Your task to perform on an android device: turn off smart reply in the gmail app Image 0: 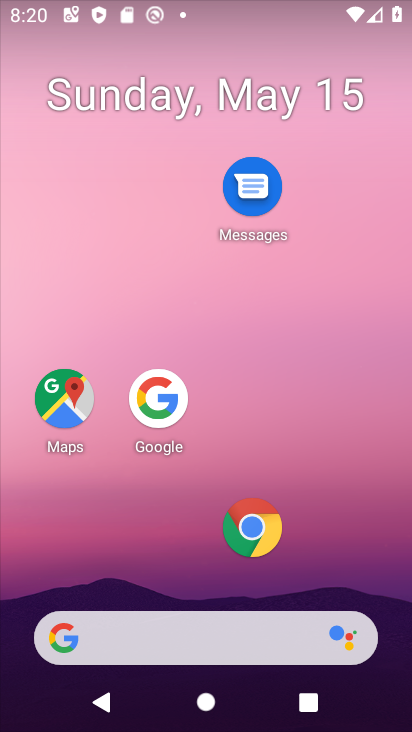
Step 0: drag from (182, 596) to (355, 38)
Your task to perform on an android device: turn off smart reply in the gmail app Image 1: 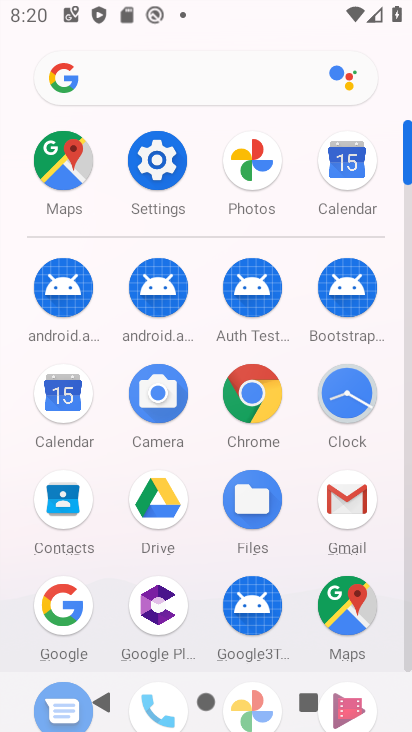
Step 1: click (337, 503)
Your task to perform on an android device: turn off smart reply in the gmail app Image 2: 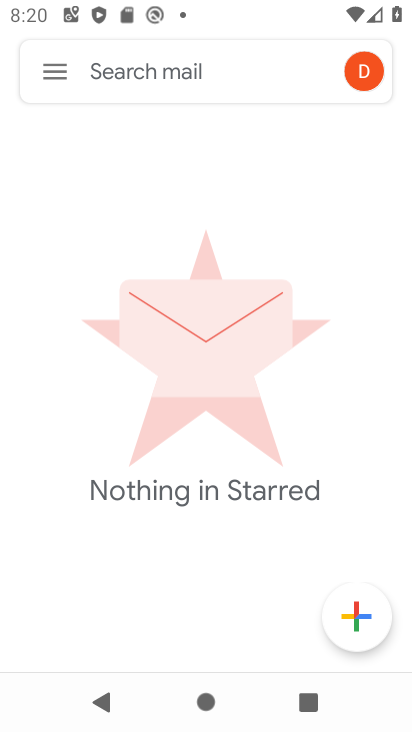
Step 2: click (54, 74)
Your task to perform on an android device: turn off smart reply in the gmail app Image 3: 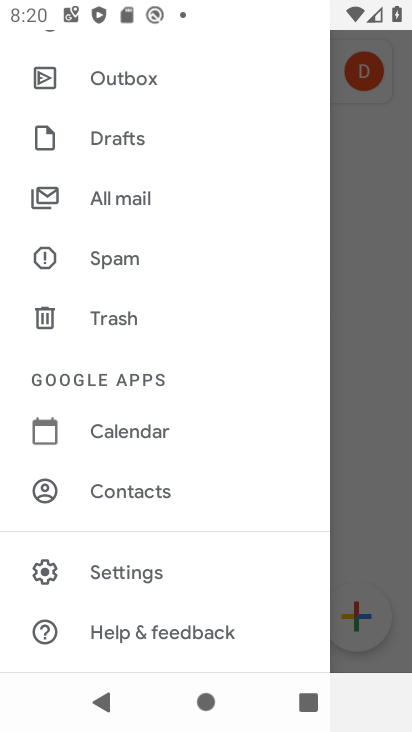
Step 3: click (143, 571)
Your task to perform on an android device: turn off smart reply in the gmail app Image 4: 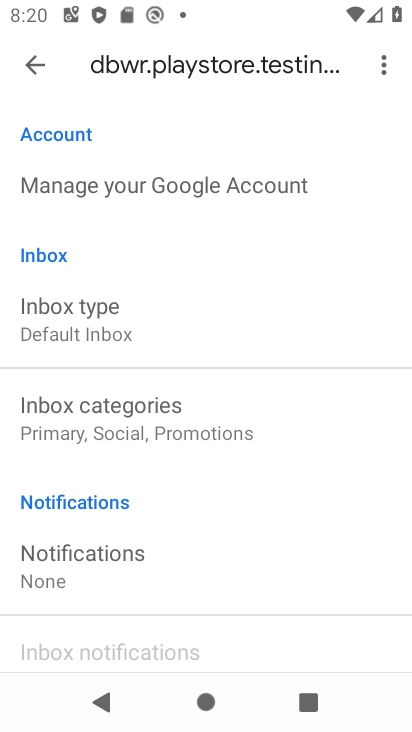
Step 4: drag from (149, 576) to (349, 150)
Your task to perform on an android device: turn off smart reply in the gmail app Image 5: 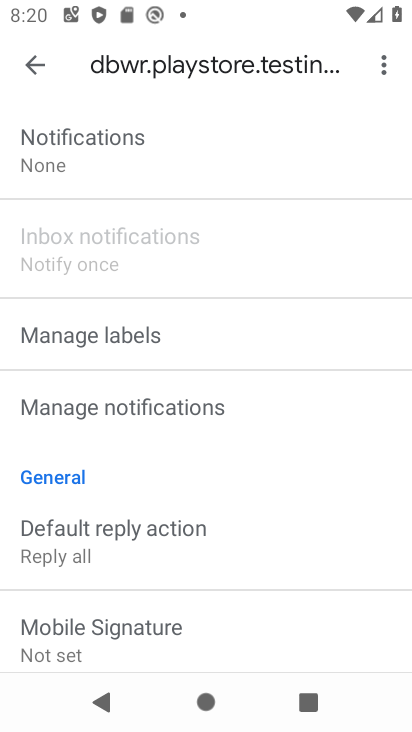
Step 5: drag from (185, 576) to (358, 188)
Your task to perform on an android device: turn off smart reply in the gmail app Image 6: 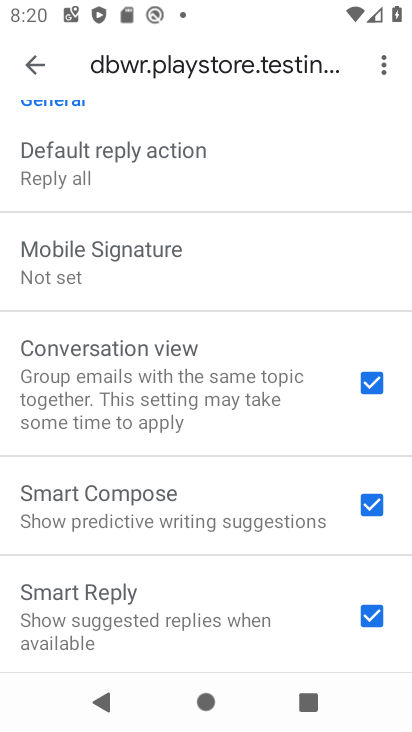
Step 6: drag from (174, 598) to (269, 347)
Your task to perform on an android device: turn off smart reply in the gmail app Image 7: 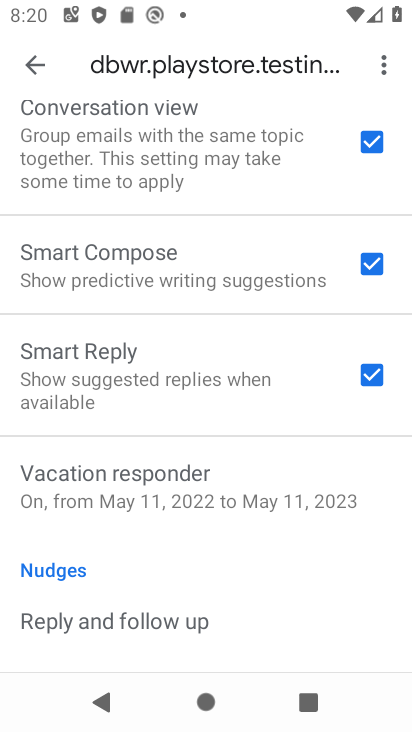
Step 7: click (372, 376)
Your task to perform on an android device: turn off smart reply in the gmail app Image 8: 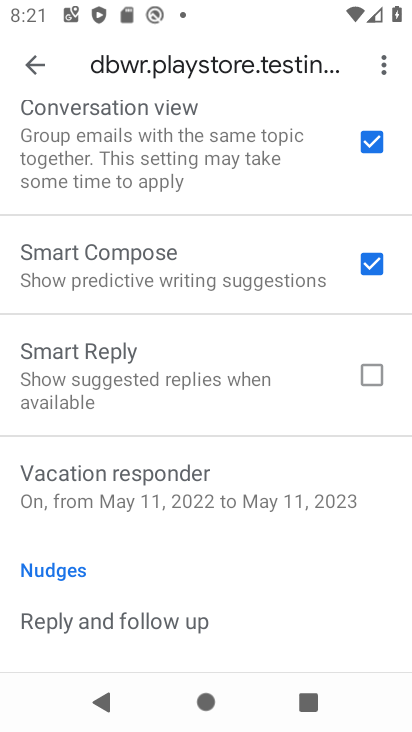
Step 8: task complete